Your task to perform on an android device: turn on the 24-hour format for clock Image 0: 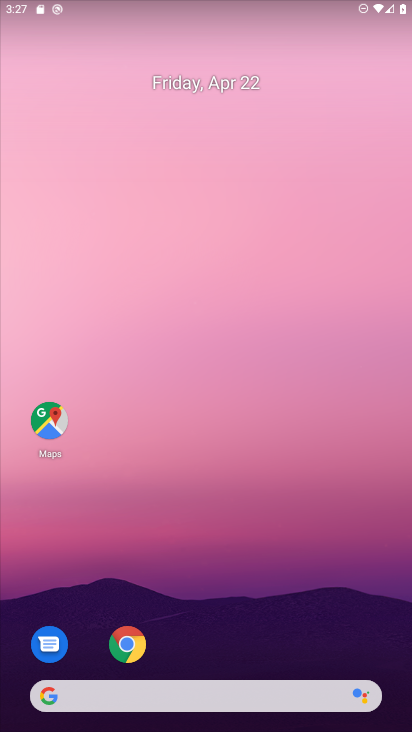
Step 0: drag from (254, 628) to (260, 36)
Your task to perform on an android device: turn on the 24-hour format for clock Image 1: 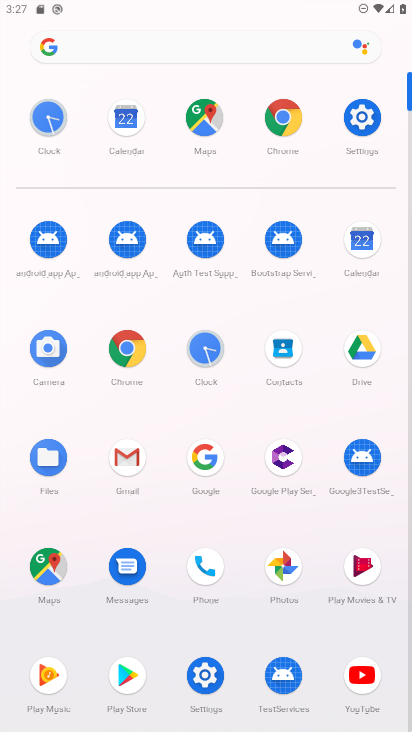
Step 1: click (51, 120)
Your task to perform on an android device: turn on the 24-hour format for clock Image 2: 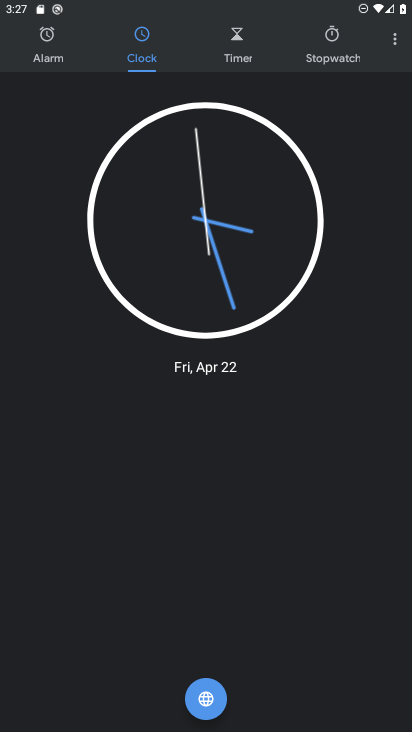
Step 2: click (399, 31)
Your task to perform on an android device: turn on the 24-hour format for clock Image 3: 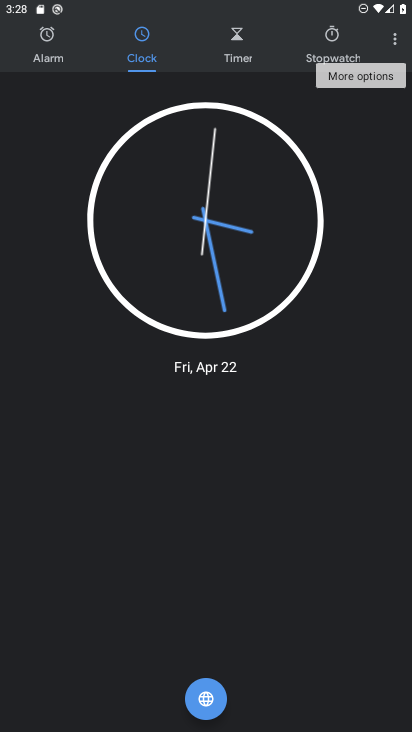
Step 3: click (390, 45)
Your task to perform on an android device: turn on the 24-hour format for clock Image 4: 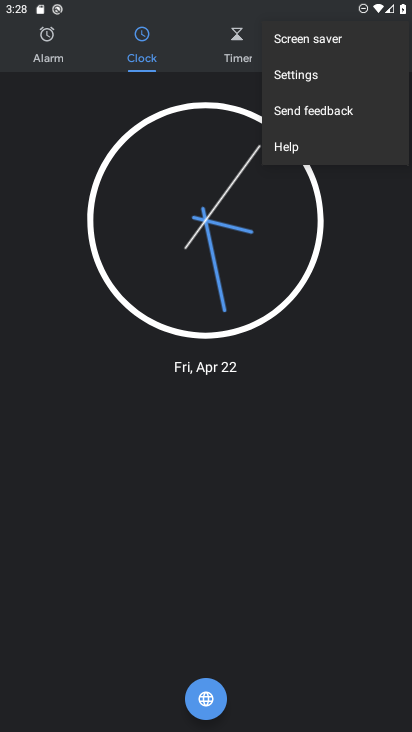
Step 4: click (314, 81)
Your task to perform on an android device: turn on the 24-hour format for clock Image 5: 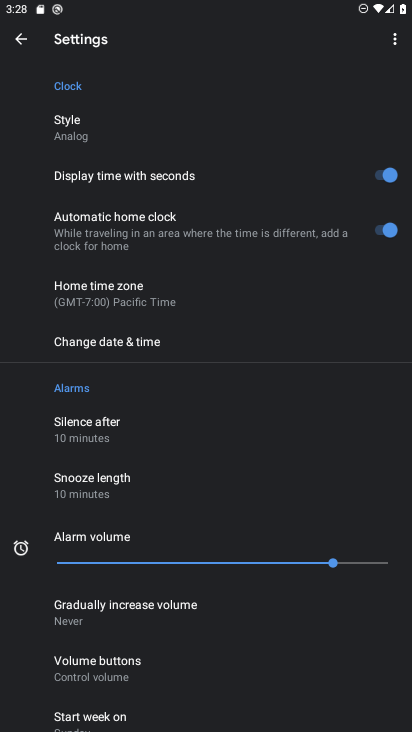
Step 5: click (150, 340)
Your task to perform on an android device: turn on the 24-hour format for clock Image 6: 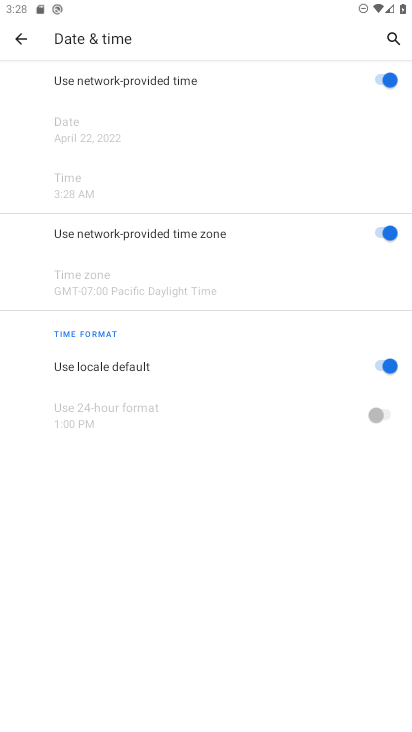
Step 6: click (376, 360)
Your task to perform on an android device: turn on the 24-hour format for clock Image 7: 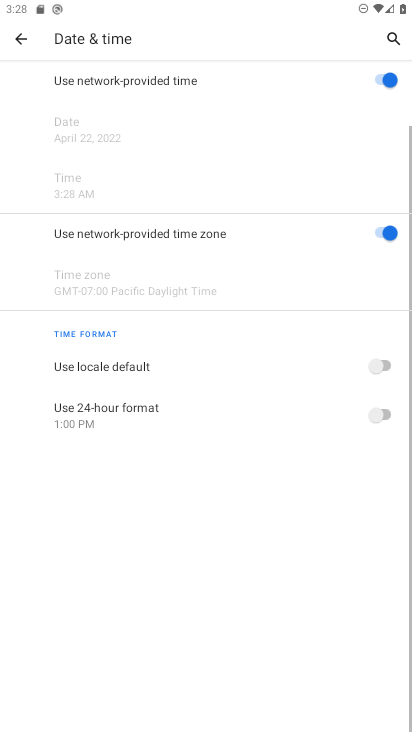
Step 7: click (381, 410)
Your task to perform on an android device: turn on the 24-hour format for clock Image 8: 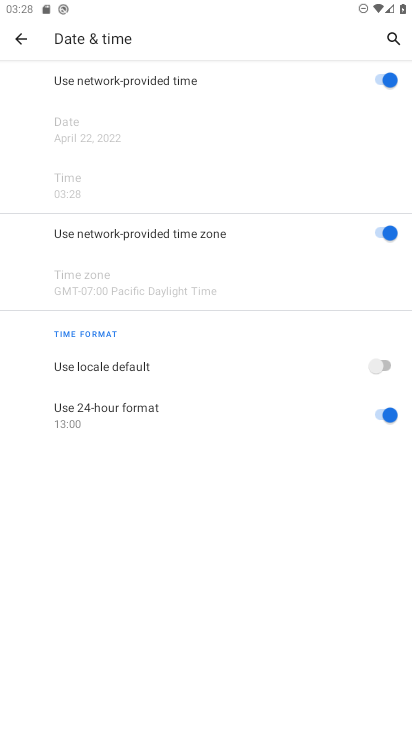
Step 8: task complete